Your task to perform on an android device: open app "Paramount+ | Peak Streaming" Image 0: 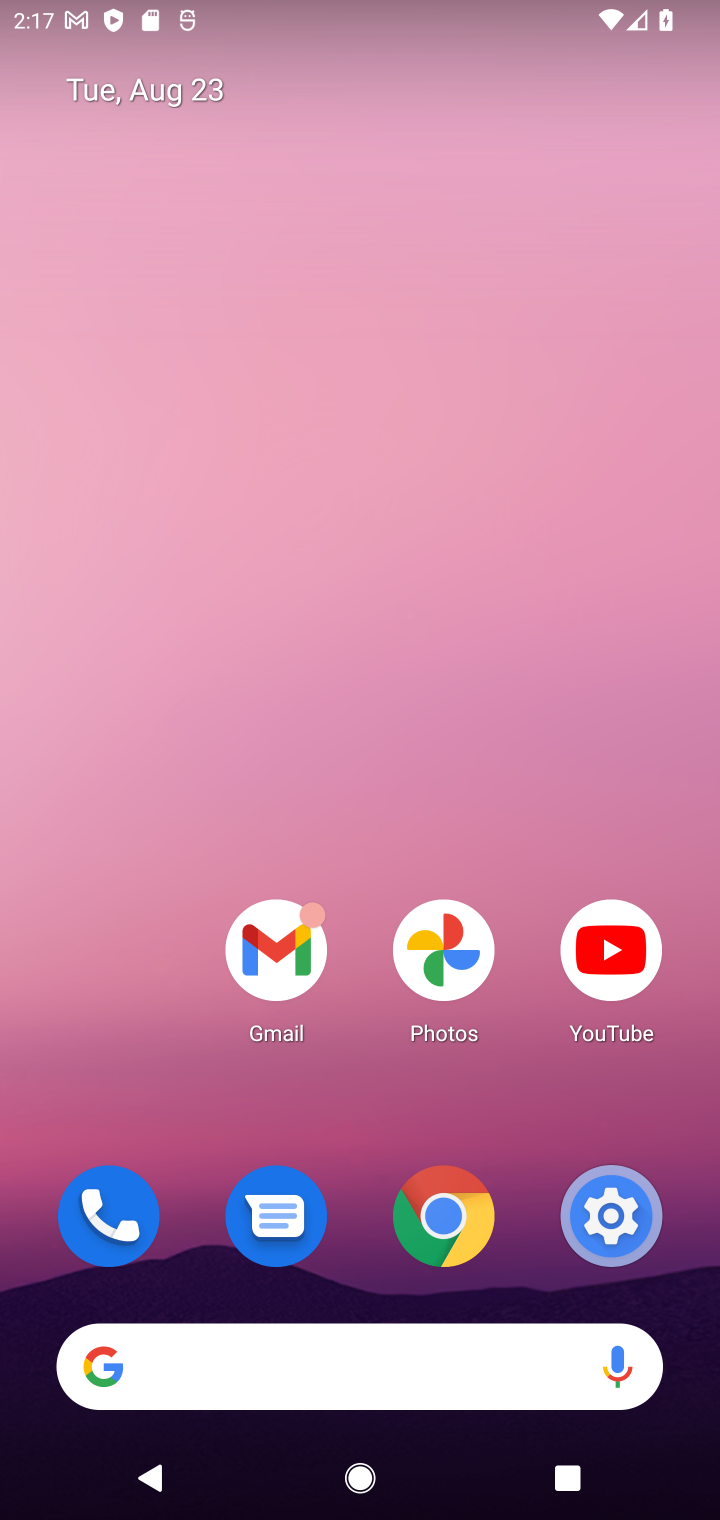
Step 0: drag from (406, 1332) to (365, 265)
Your task to perform on an android device: open app "Paramount+ | Peak Streaming" Image 1: 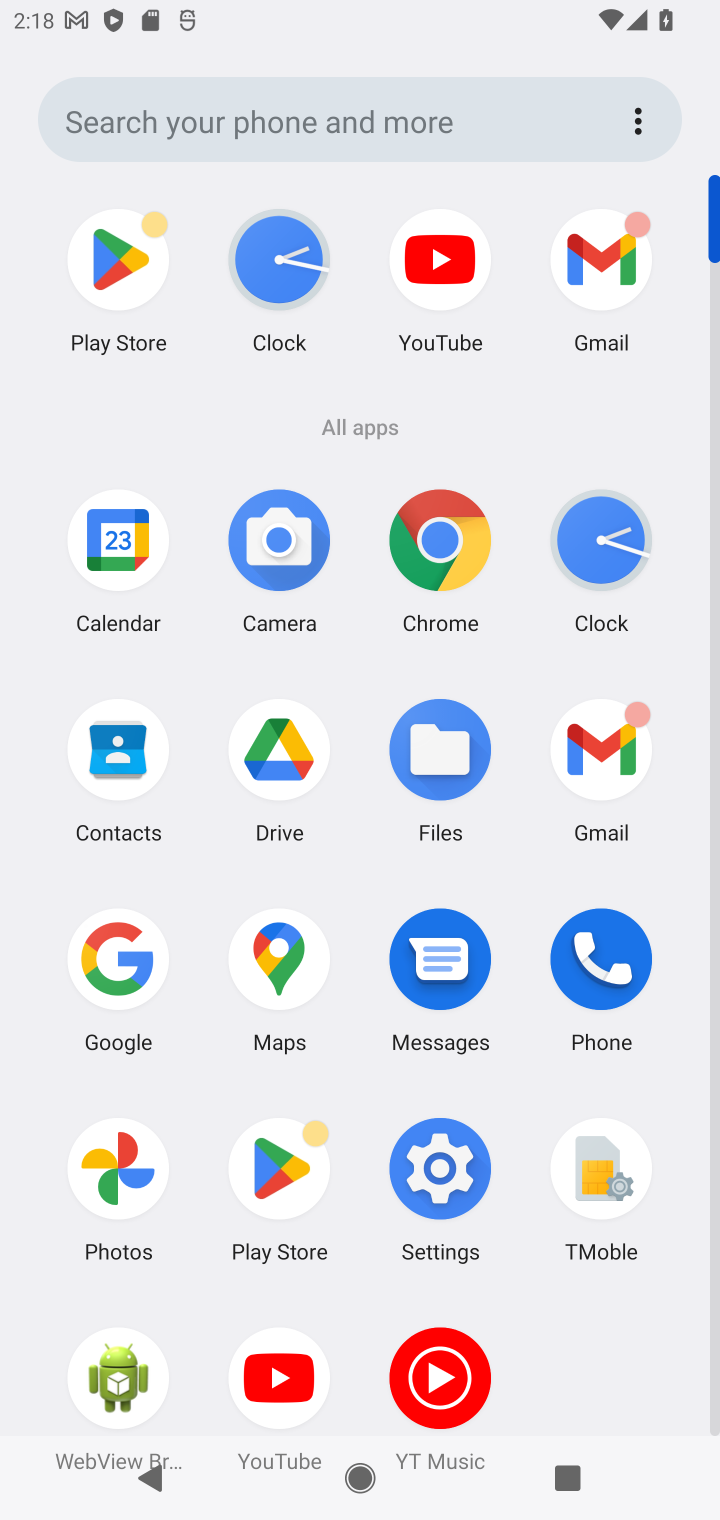
Step 1: click (265, 1158)
Your task to perform on an android device: open app "Paramount+ | Peak Streaming" Image 2: 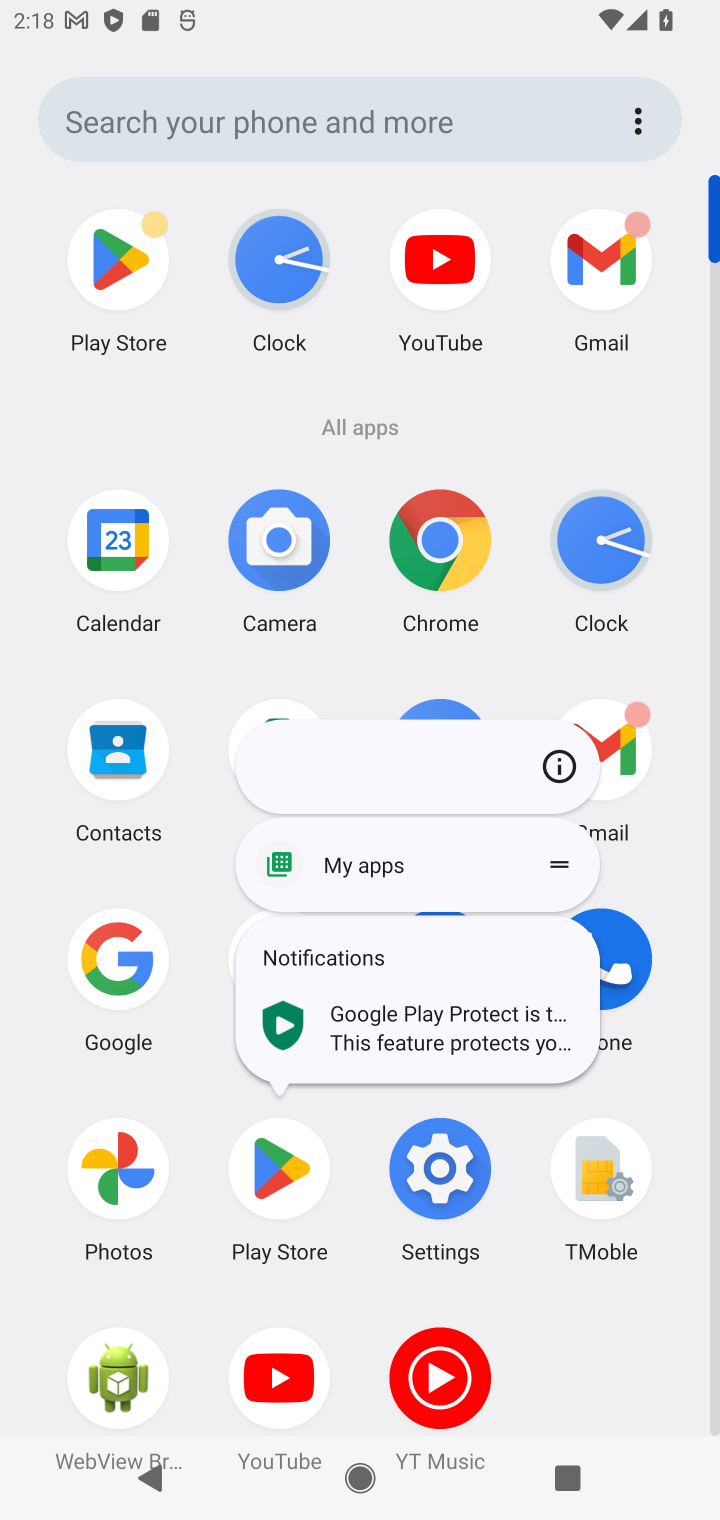
Step 2: click (257, 1169)
Your task to perform on an android device: open app "Paramount+ | Peak Streaming" Image 3: 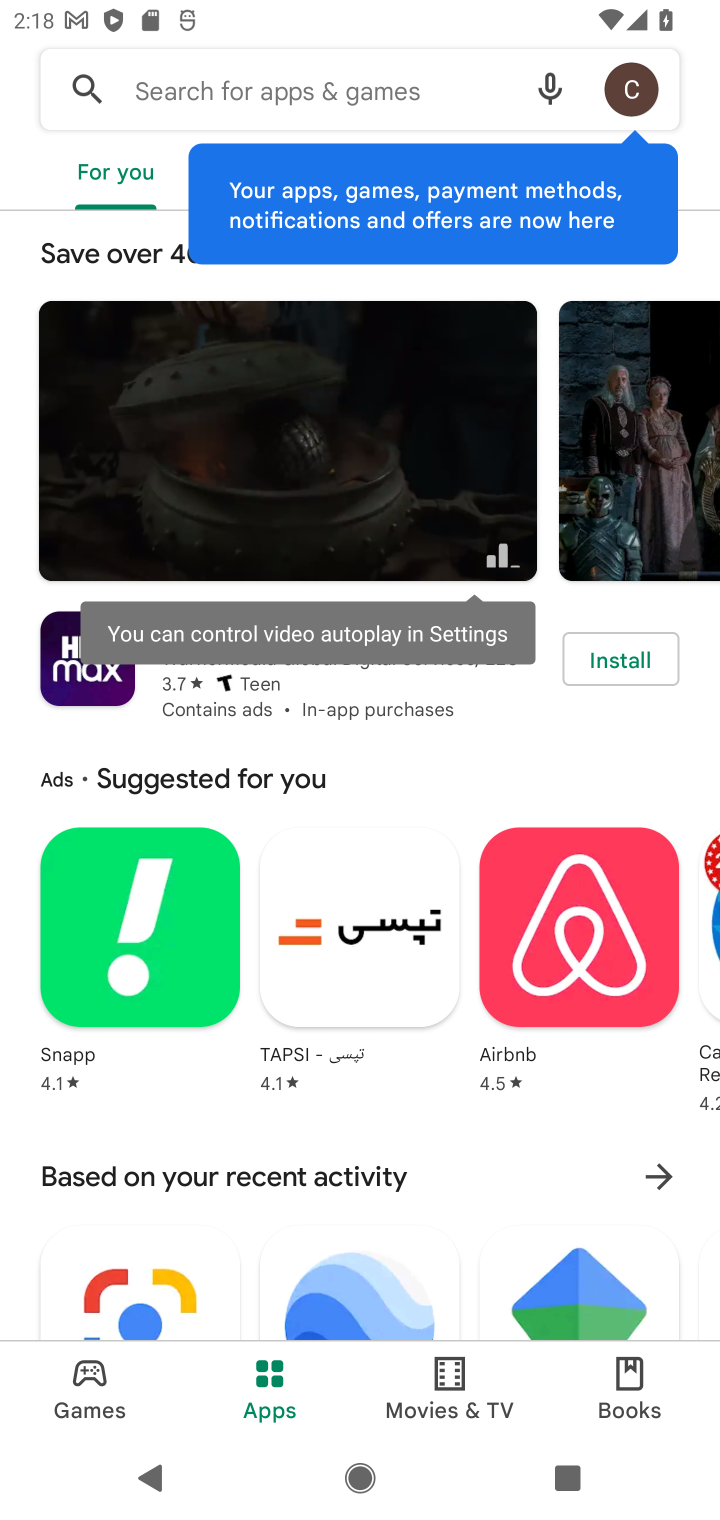
Step 3: click (278, 81)
Your task to perform on an android device: open app "Paramount+ | Peak Streaming" Image 4: 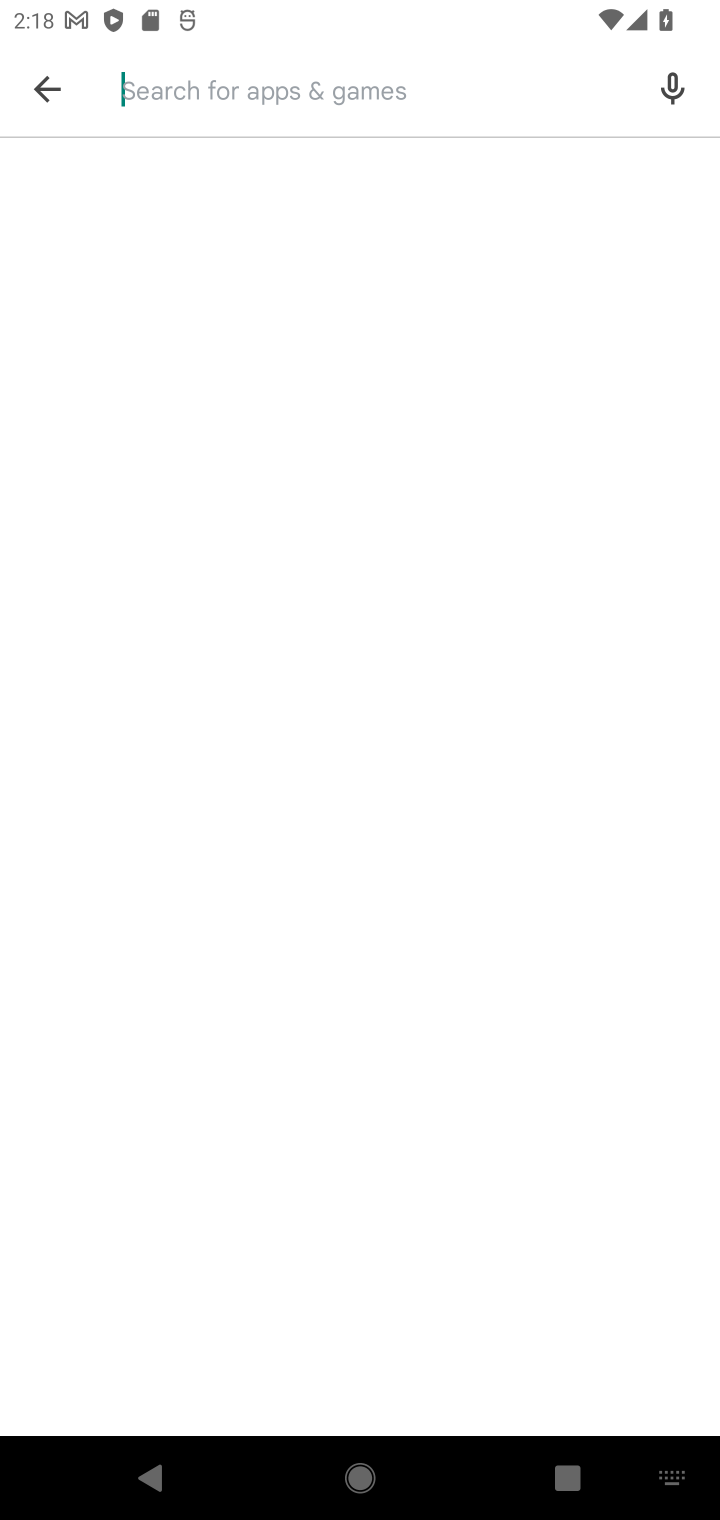
Step 4: click (281, 73)
Your task to perform on an android device: open app "Paramount+ | Peak Streaming" Image 5: 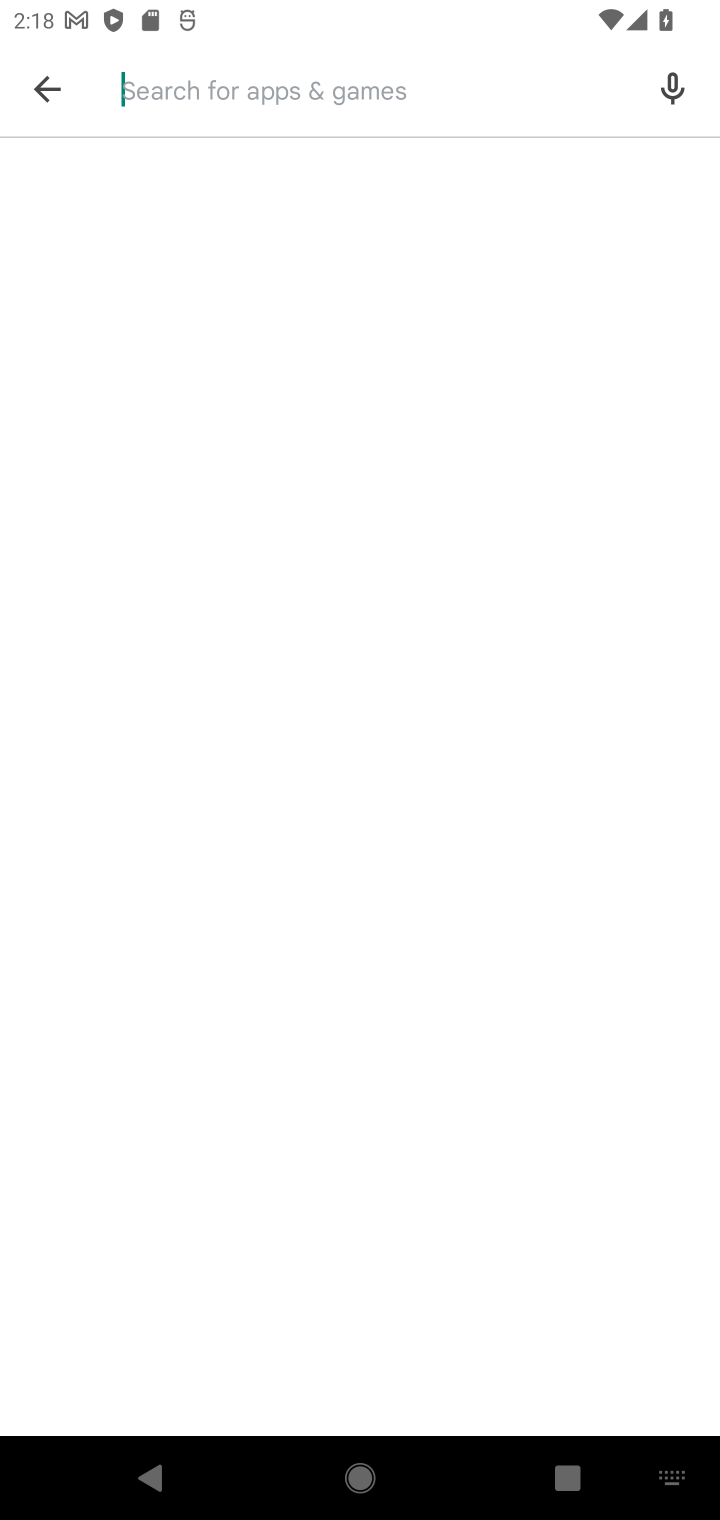
Step 5: type "Paramount+ "
Your task to perform on an android device: open app "Paramount+ | Peak Streaming" Image 6: 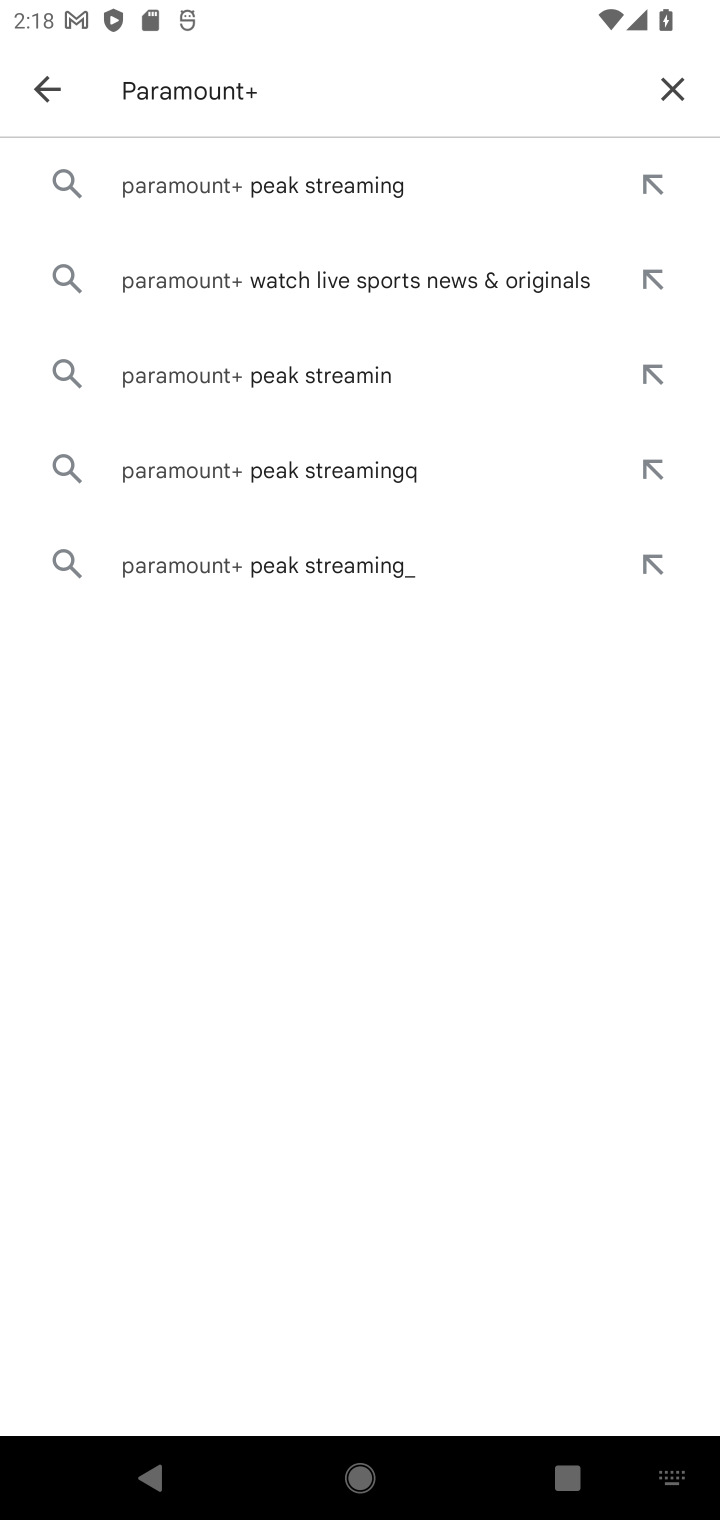
Step 6: click (295, 180)
Your task to perform on an android device: open app "Paramount+ | Peak Streaming" Image 7: 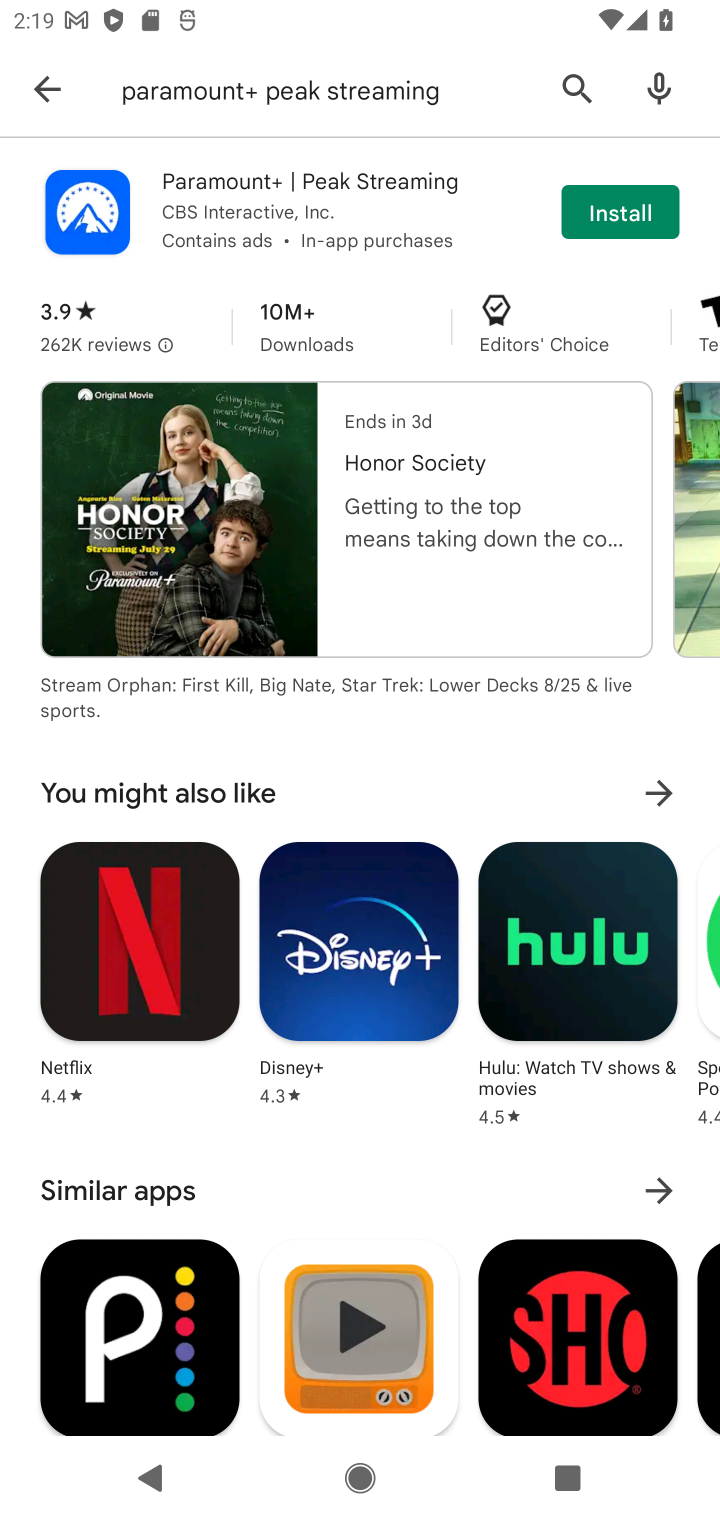
Step 7: click (637, 201)
Your task to perform on an android device: open app "Paramount+ | Peak Streaming" Image 8: 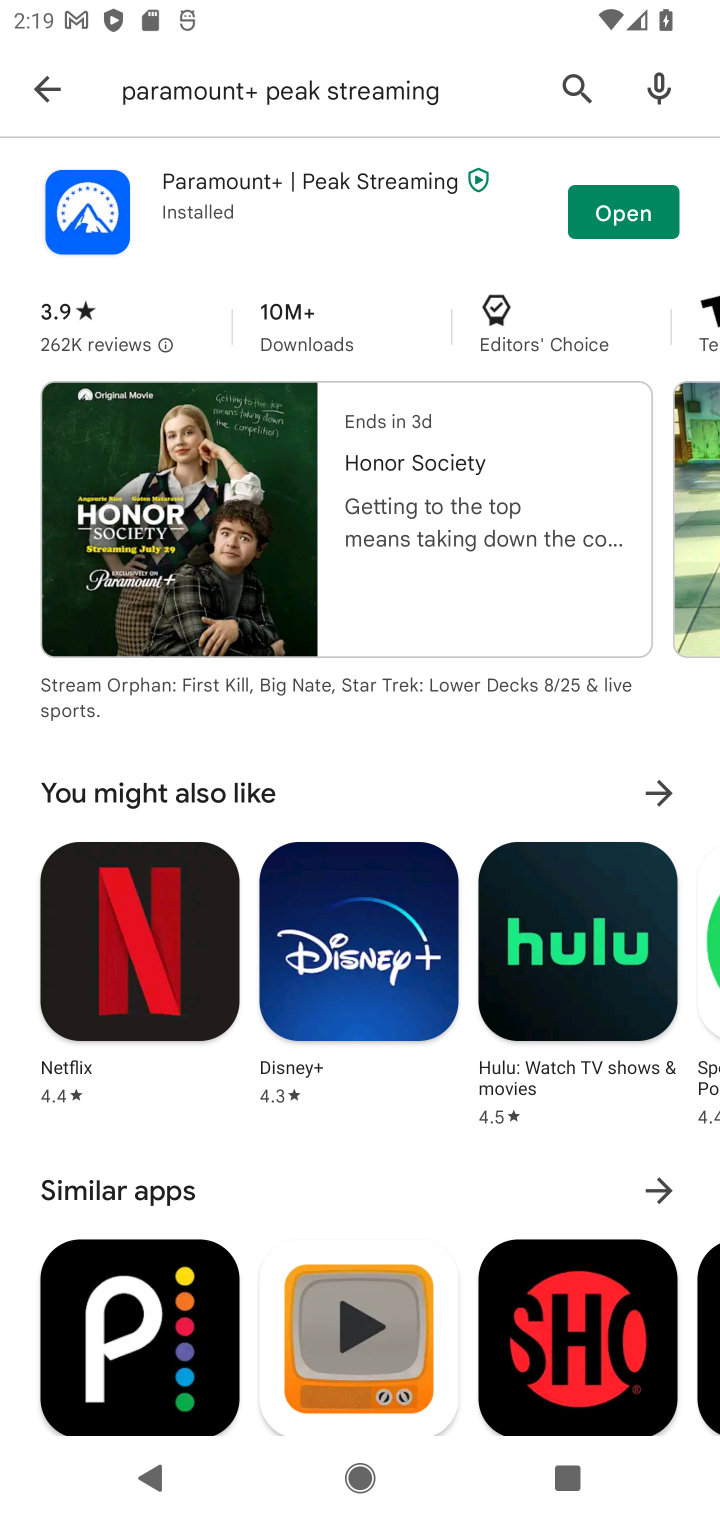
Step 8: click (637, 201)
Your task to perform on an android device: open app "Paramount+ | Peak Streaming" Image 9: 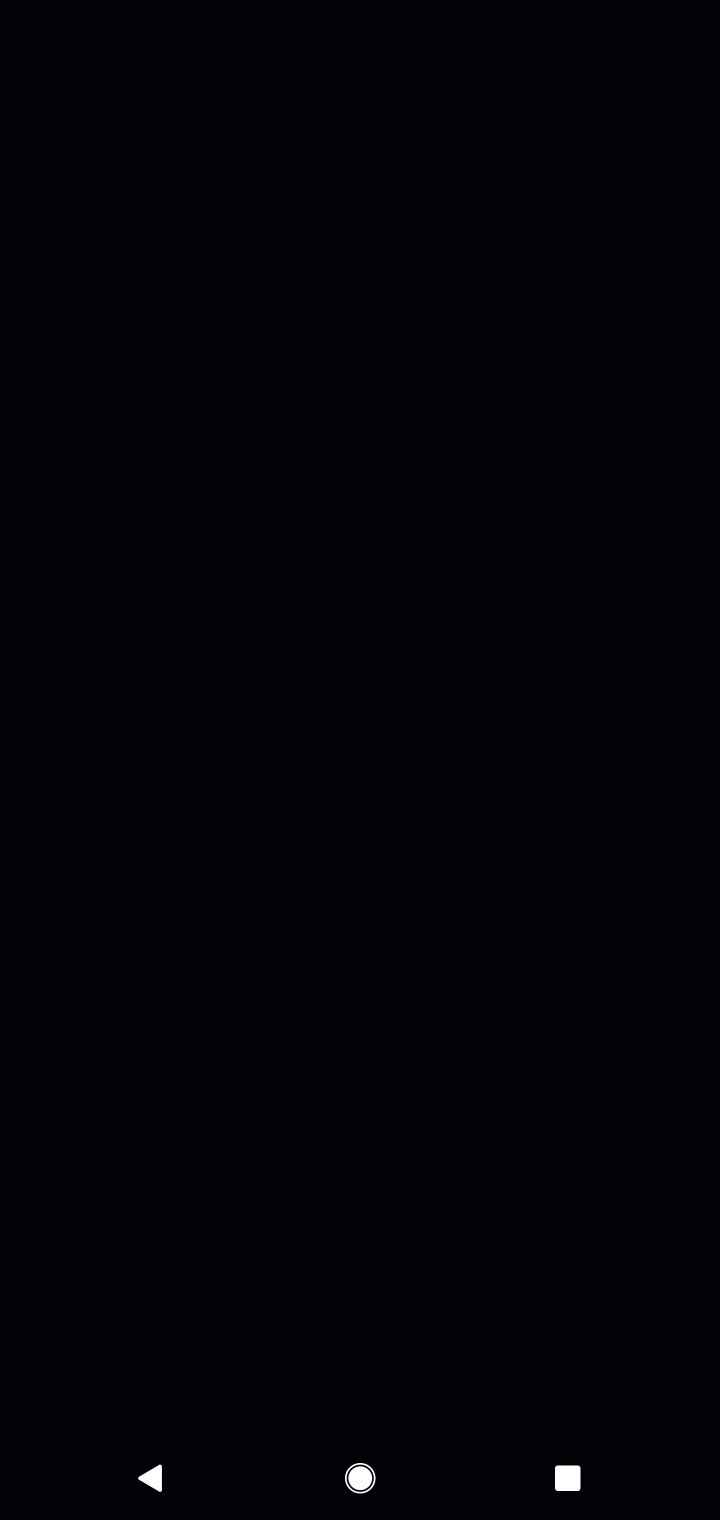
Step 9: task complete